Your task to perform on an android device: What's on my calendar today? Image 0: 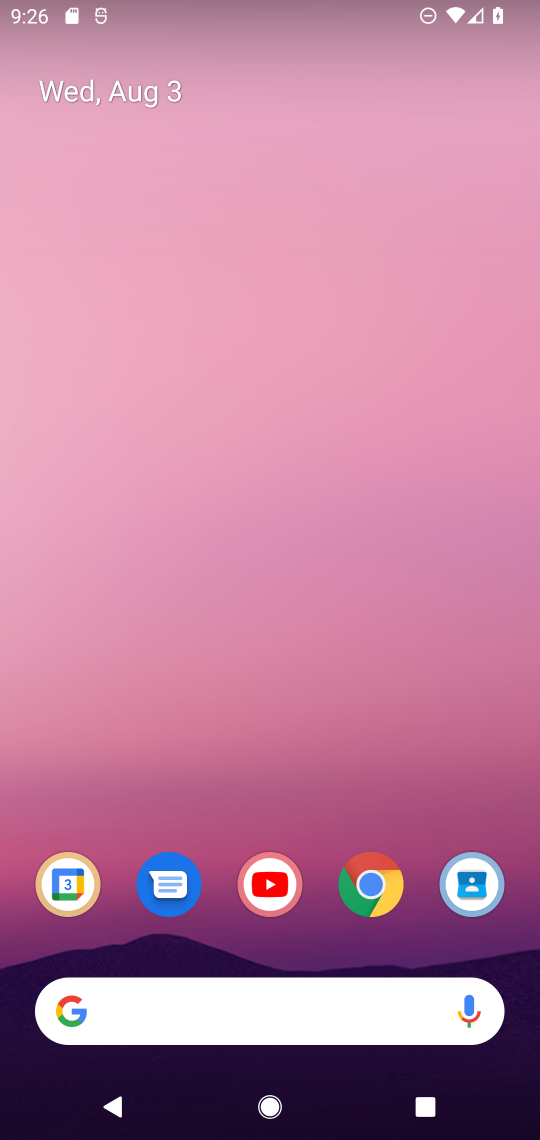
Step 0: drag from (65, 1100) to (301, 269)
Your task to perform on an android device: What's on my calendar today? Image 1: 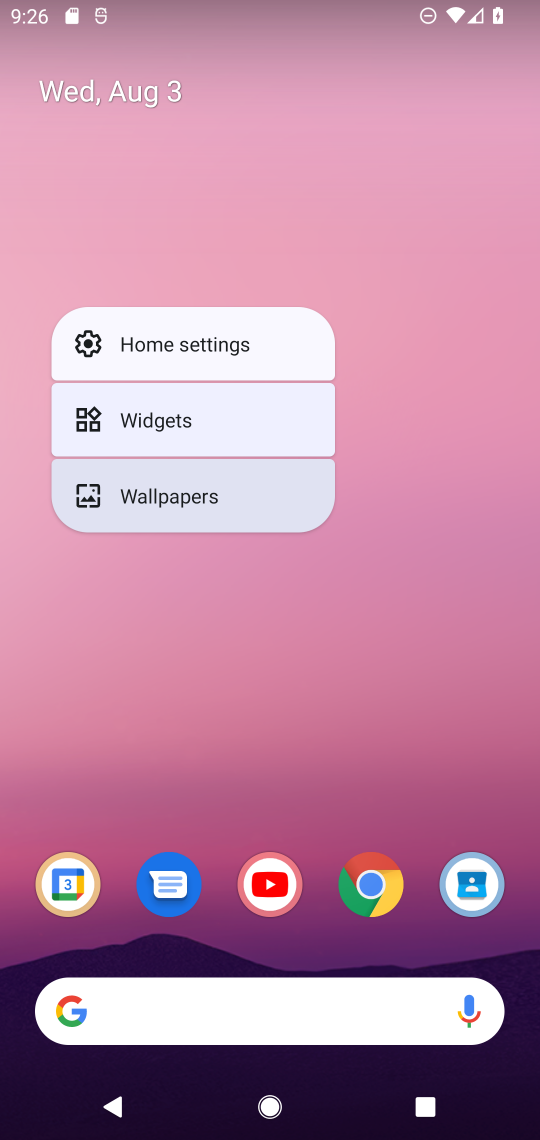
Step 1: click (76, 851)
Your task to perform on an android device: What's on my calendar today? Image 2: 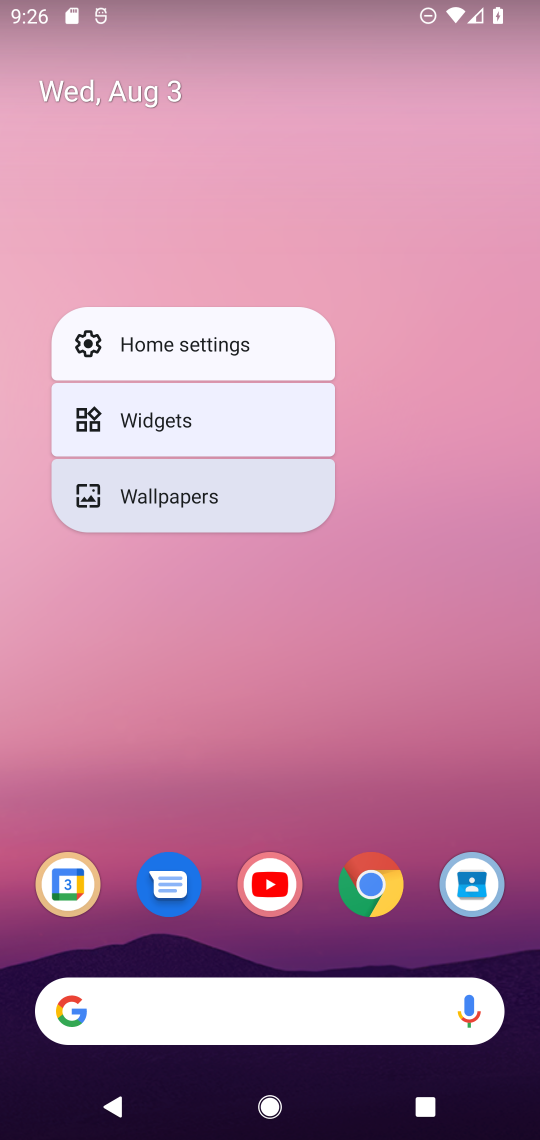
Step 2: click (57, 882)
Your task to perform on an android device: What's on my calendar today? Image 3: 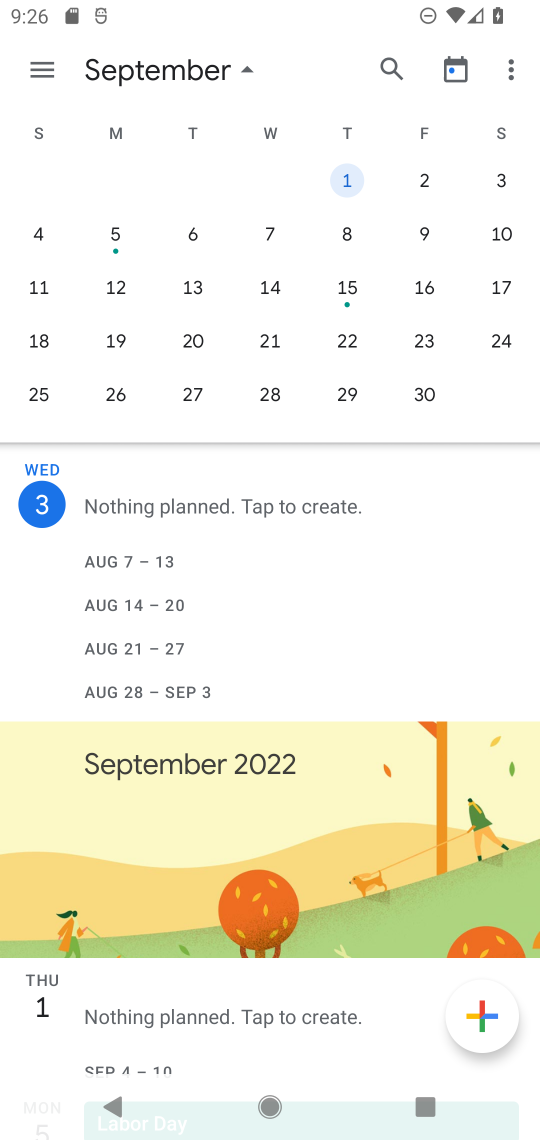
Step 3: task complete